Your task to perform on an android device: Do I have any events this weekend? Image 0: 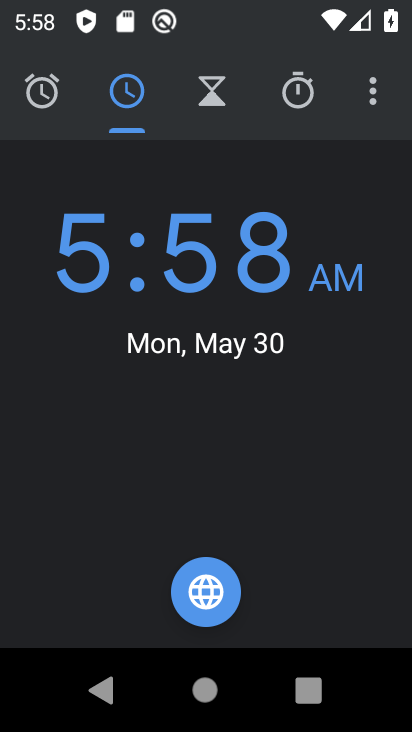
Step 0: press home button
Your task to perform on an android device: Do I have any events this weekend? Image 1: 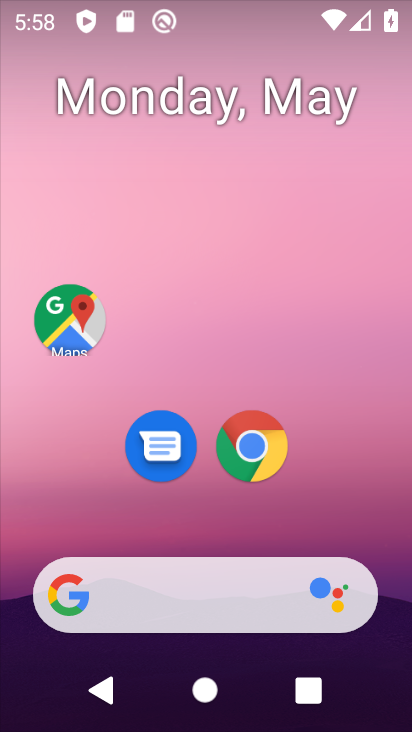
Step 1: drag from (333, 466) to (212, 76)
Your task to perform on an android device: Do I have any events this weekend? Image 2: 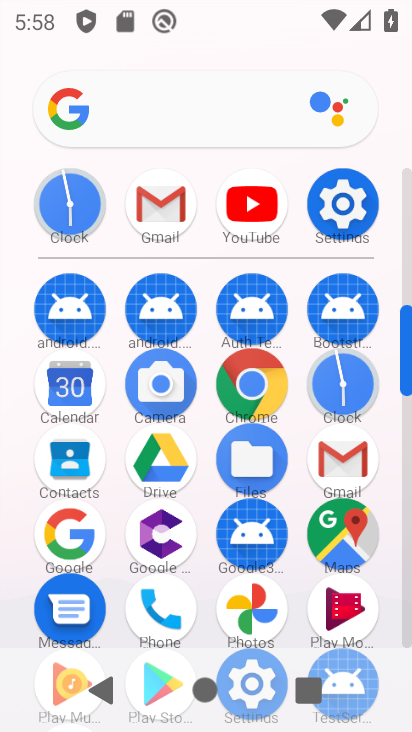
Step 2: click (74, 388)
Your task to perform on an android device: Do I have any events this weekend? Image 3: 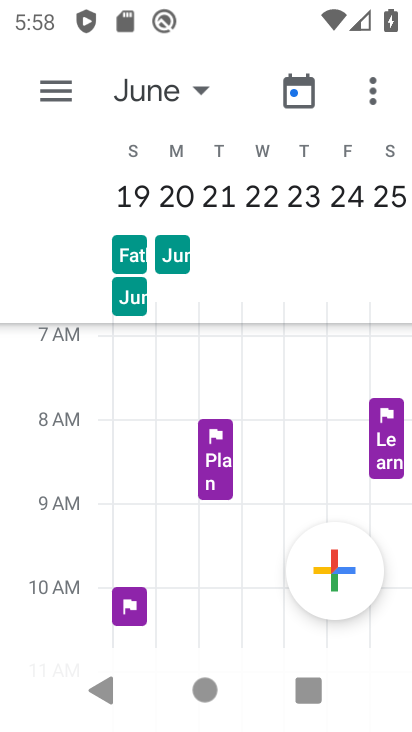
Step 3: click (195, 84)
Your task to perform on an android device: Do I have any events this weekend? Image 4: 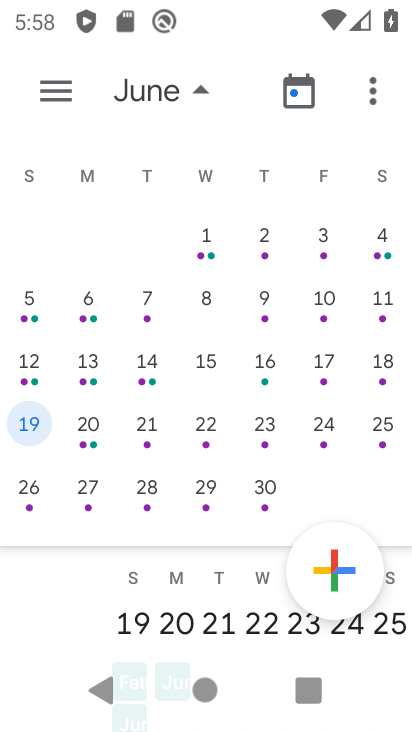
Step 4: drag from (30, 326) to (376, 478)
Your task to perform on an android device: Do I have any events this weekend? Image 5: 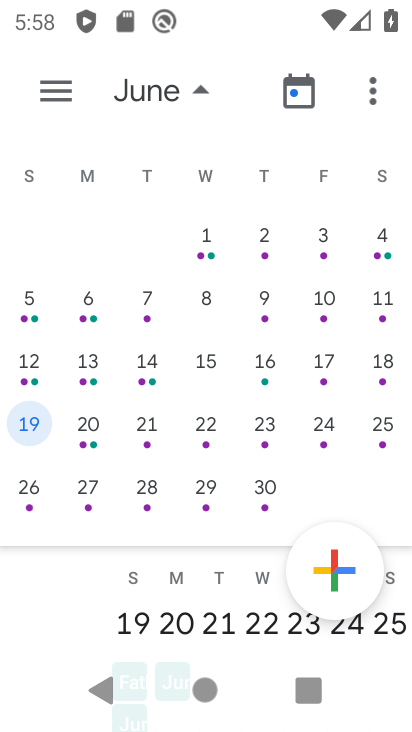
Step 5: click (343, 359)
Your task to perform on an android device: Do I have any events this weekend? Image 6: 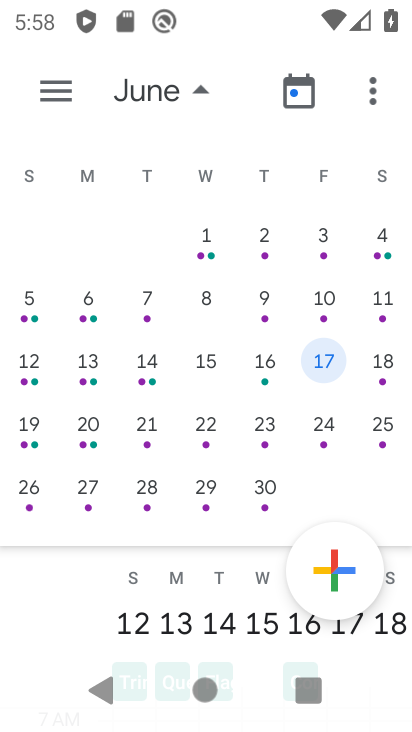
Step 6: drag from (82, 319) to (328, 312)
Your task to perform on an android device: Do I have any events this weekend? Image 7: 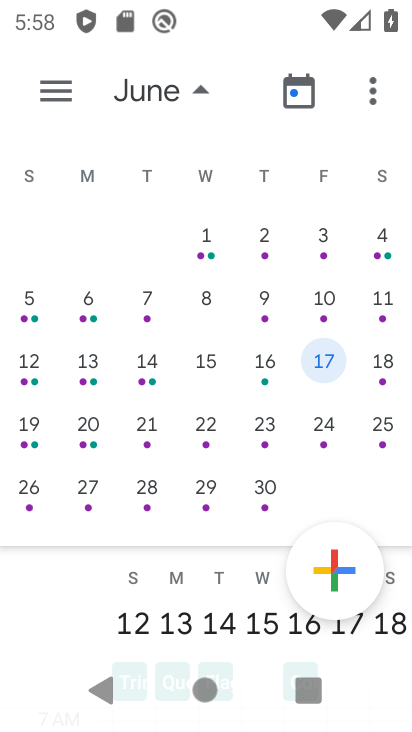
Step 7: click (78, 307)
Your task to perform on an android device: Do I have any events this weekend? Image 8: 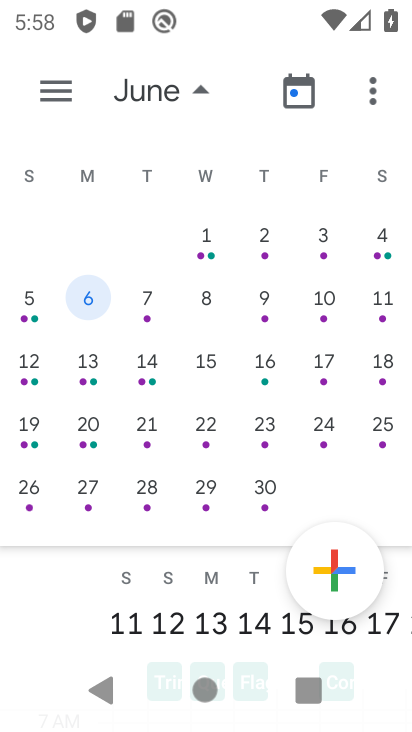
Step 8: drag from (78, 307) to (407, 431)
Your task to perform on an android device: Do I have any events this weekend? Image 9: 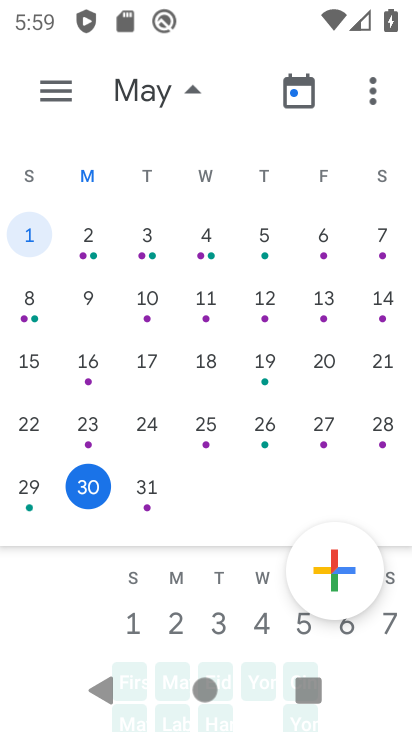
Step 9: drag from (336, 354) to (46, 277)
Your task to perform on an android device: Do I have any events this weekend? Image 10: 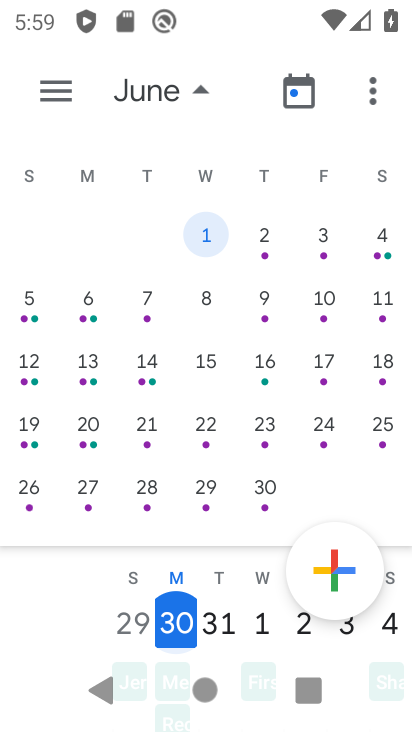
Step 10: click (381, 234)
Your task to perform on an android device: Do I have any events this weekend? Image 11: 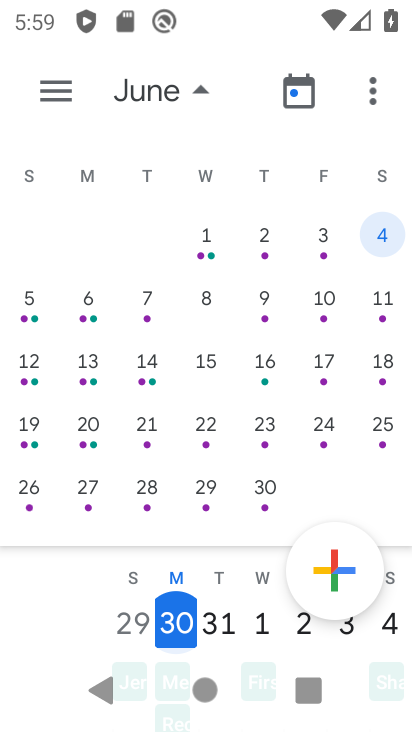
Step 11: task complete